Your task to perform on an android device: turn off picture-in-picture Image 0: 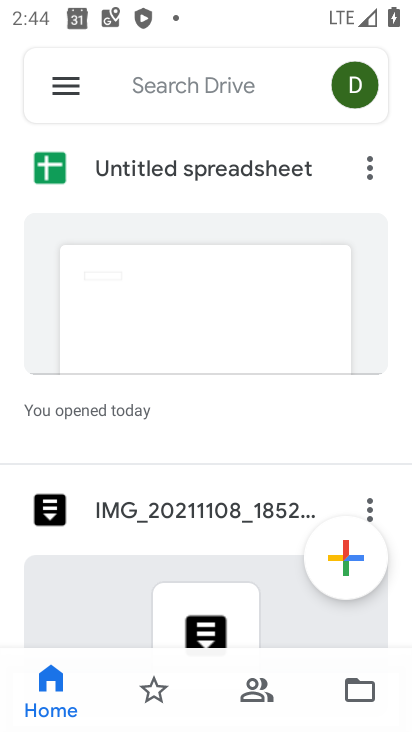
Step 0: press home button
Your task to perform on an android device: turn off picture-in-picture Image 1: 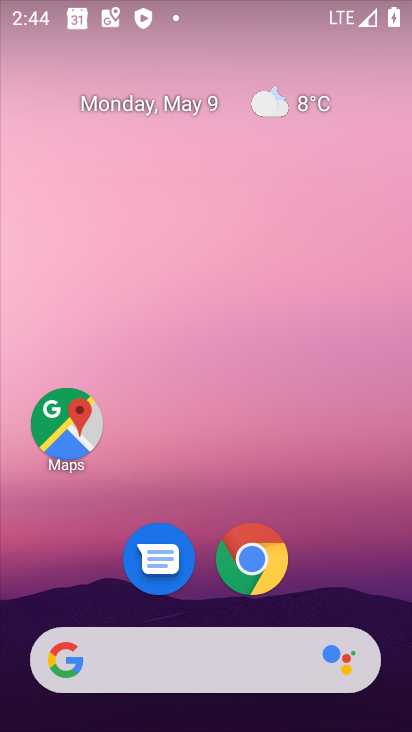
Step 1: drag from (329, 562) to (280, 0)
Your task to perform on an android device: turn off picture-in-picture Image 2: 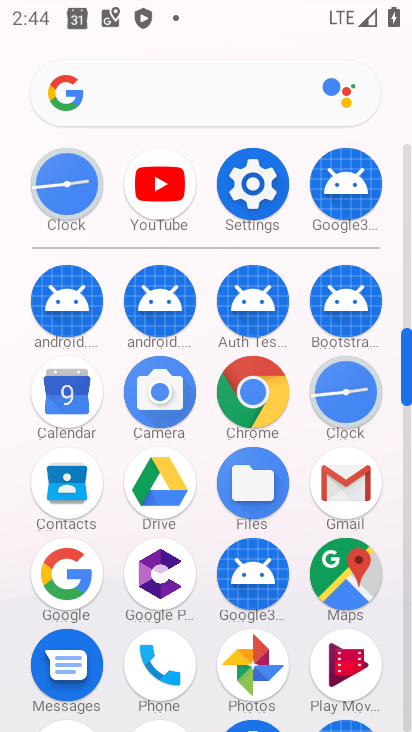
Step 2: click (242, 190)
Your task to perform on an android device: turn off picture-in-picture Image 3: 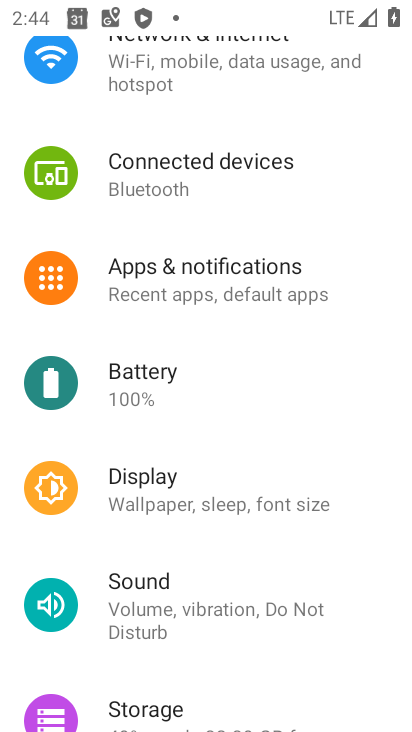
Step 3: click (191, 266)
Your task to perform on an android device: turn off picture-in-picture Image 4: 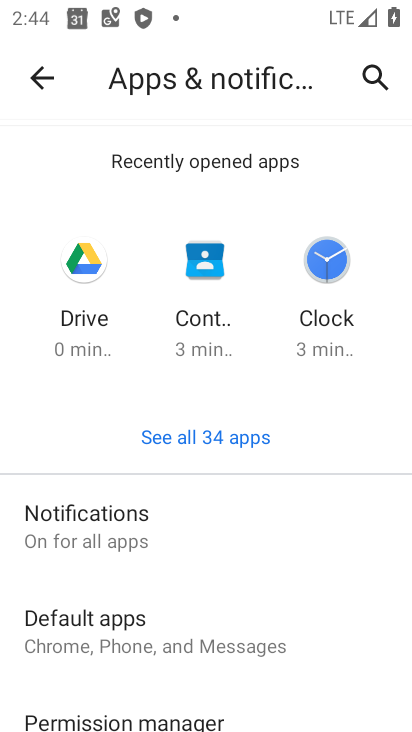
Step 4: drag from (251, 619) to (245, 49)
Your task to perform on an android device: turn off picture-in-picture Image 5: 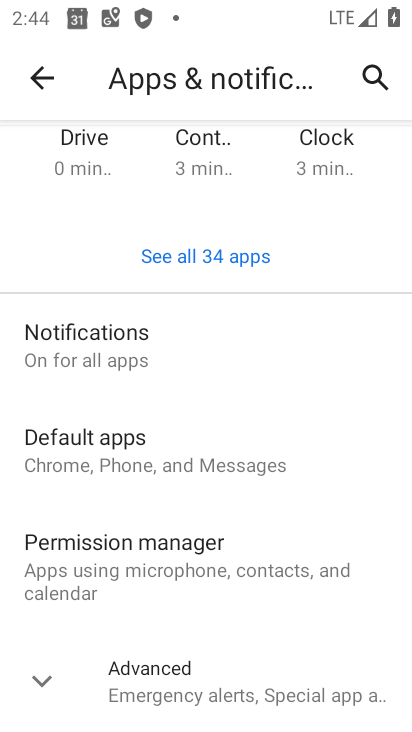
Step 5: click (84, 673)
Your task to perform on an android device: turn off picture-in-picture Image 6: 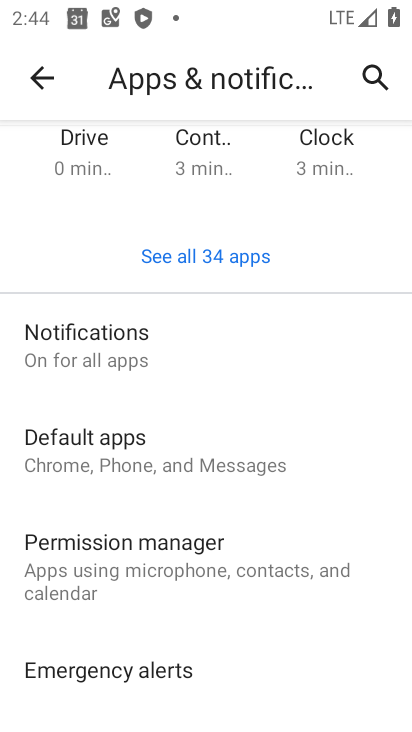
Step 6: drag from (96, 621) to (111, 33)
Your task to perform on an android device: turn off picture-in-picture Image 7: 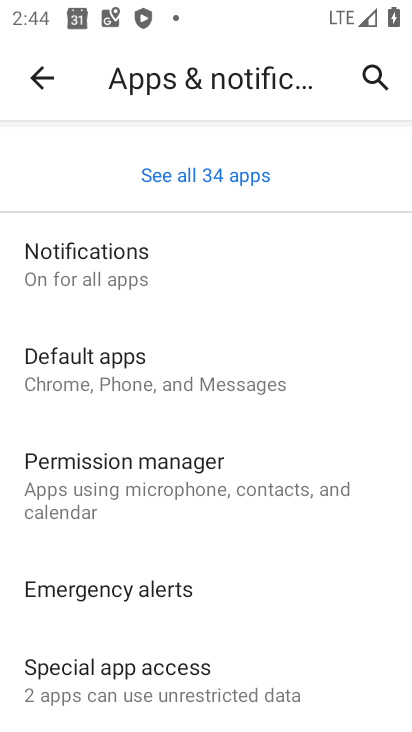
Step 7: click (139, 665)
Your task to perform on an android device: turn off picture-in-picture Image 8: 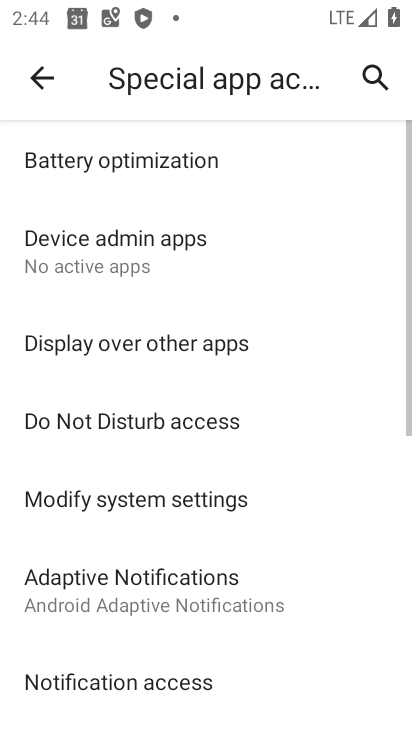
Step 8: drag from (215, 543) to (208, 116)
Your task to perform on an android device: turn off picture-in-picture Image 9: 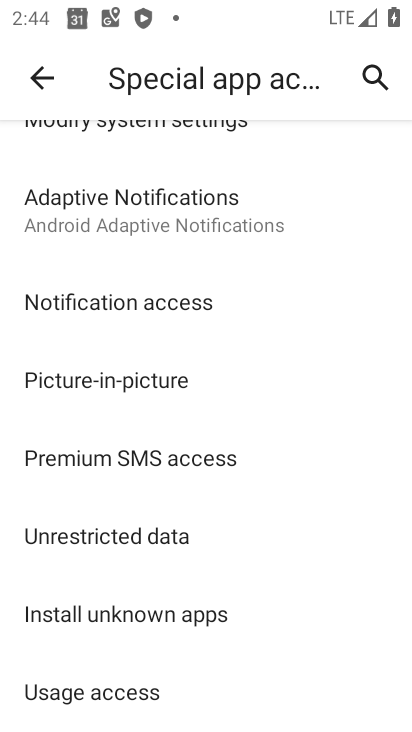
Step 9: click (135, 379)
Your task to perform on an android device: turn off picture-in-picture Image 10: 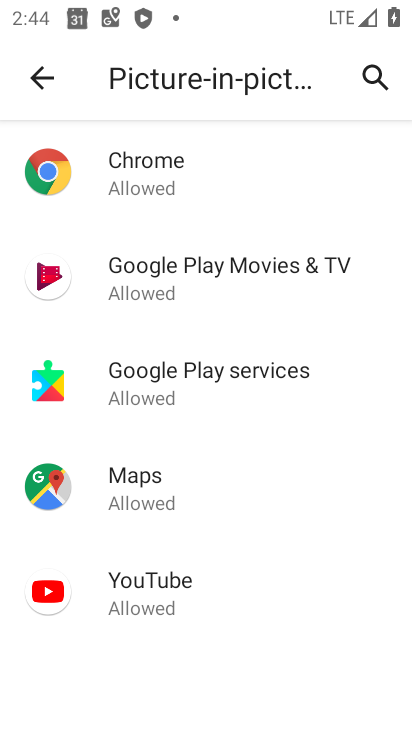
Step 10: click (133, 172)
Your task to perform on an android device: turn off picture-in-picture Image 11: 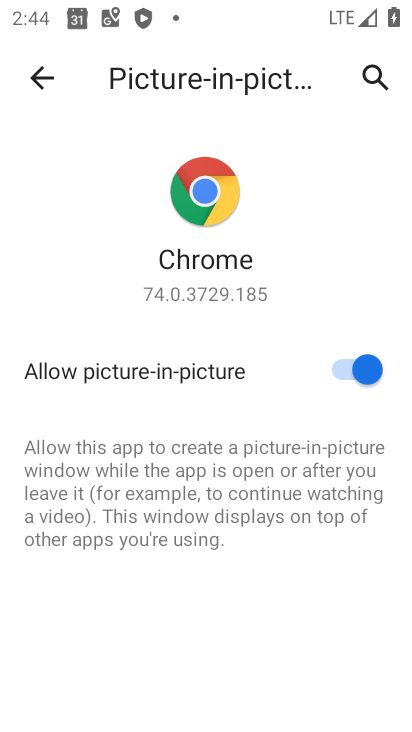
Step 11: click (358, 380)
Your task to perform on an android device: turn off picture-in-picture Image 12: 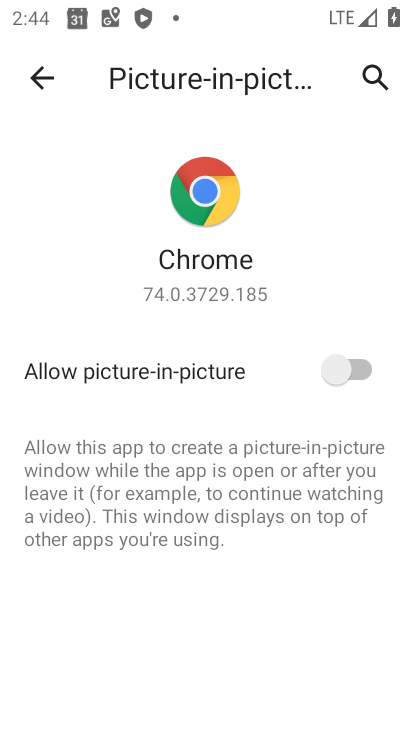
Step 12: click (43, 74)
Your task to perform on an android device: turn off picture-in-picture Image 13: 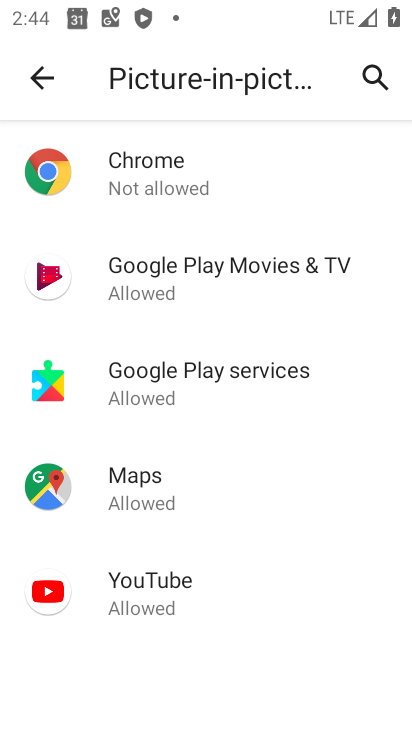
Step 13: click (139, 269)
Your task to perform on an android device: turn off picture-in-picture Image 14: 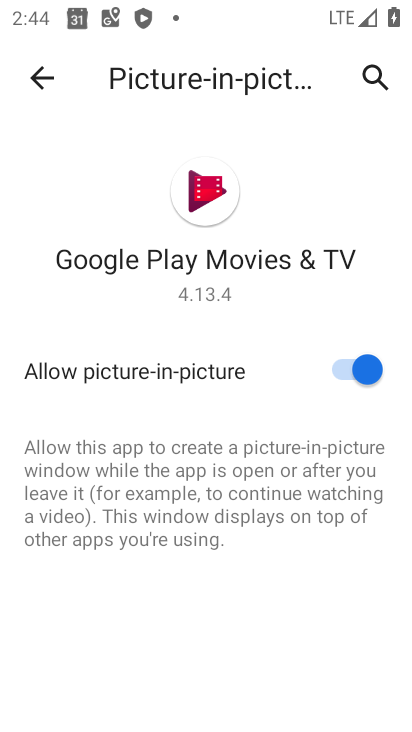
Step 14: click (359, 365)
Your task to perform on an android device: turn off picture-in-picture Image 15: 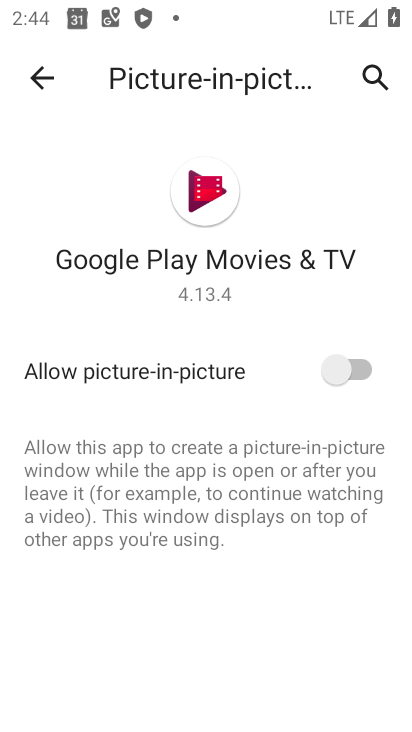
Step 15: click (47, 75)
Your task to perform on an android device: turn off picture-in-picture Image 16: 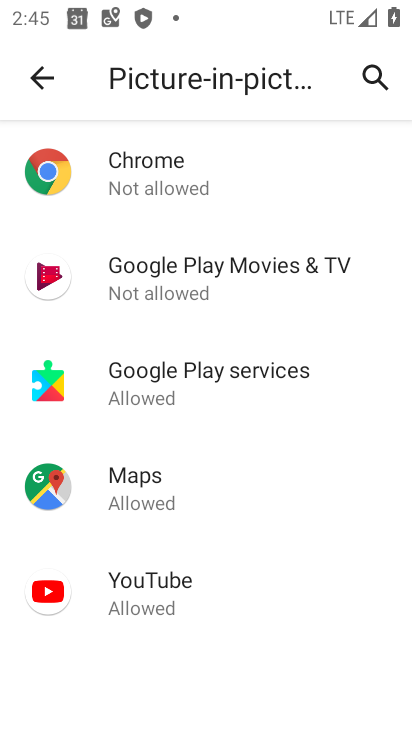
Step 16: click (120, 382)
Your task to perform on an android device: turn off picture-in-picture Image 17: 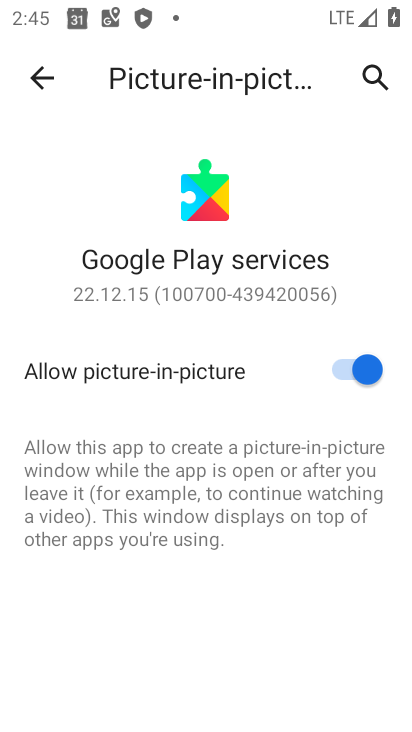
Step 17: click (352, 361)
Your task to perform on an android device: turn off picture-in-picture Image 18: 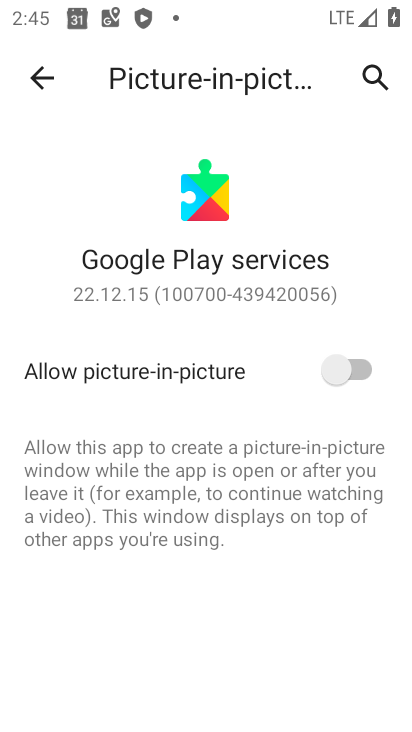
Step 18: click (40, 73)
Your task to perform on an android device: turn off picture-in-picture Image 19: 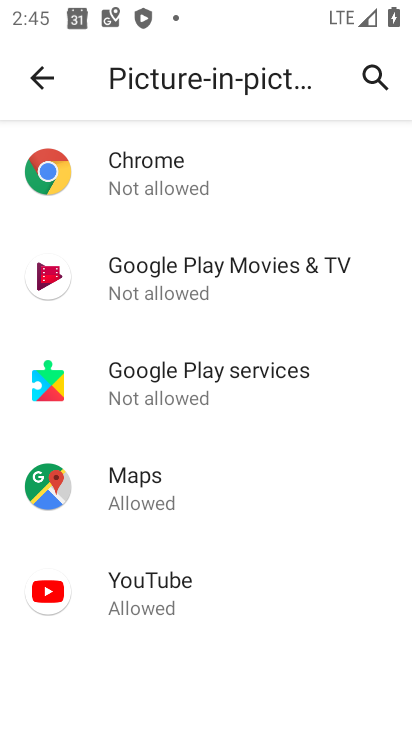
Step 19: click (120, 505)
Your task to perform on an android device: turn off picture-in-picture Image 20: 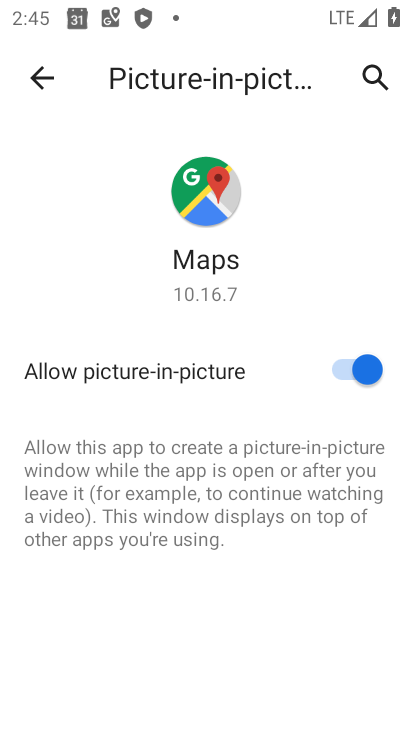
Step 20: click (361, 370)
Your task to perform on an android device: turn off picture-in-picture Image 21: 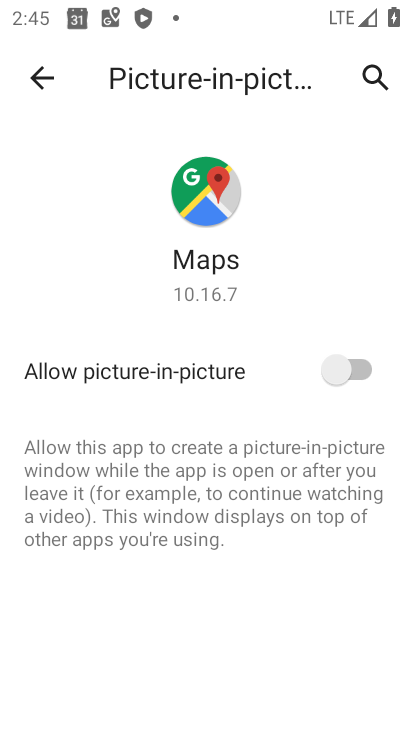
Step 21: click (44, 79)
Your task to perform on an android device: turn off picture-in-picture Image 22: 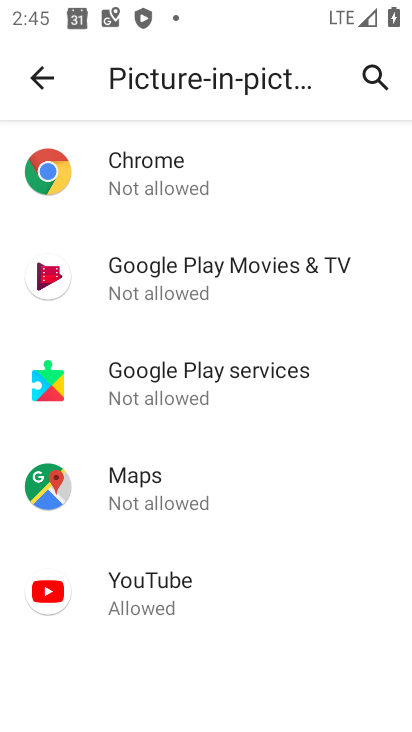
Step 22: click (139, 570)
Your task to perform on an android device: turn off picture-in-picture Image 23: 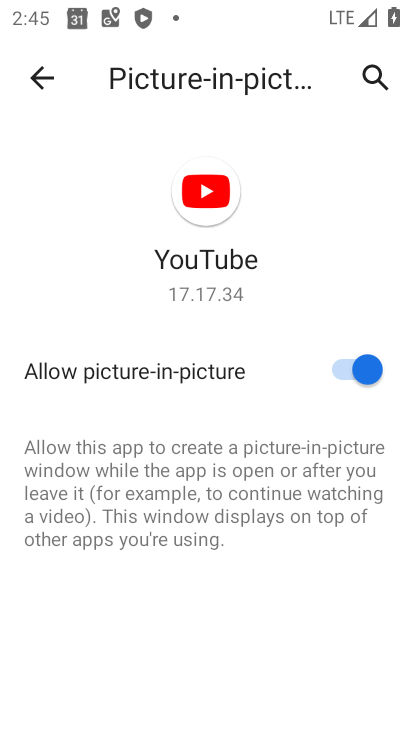
Step 23: click (353, 373)
Your task to perform on an android device: turn off picture-in-picture Image 24: 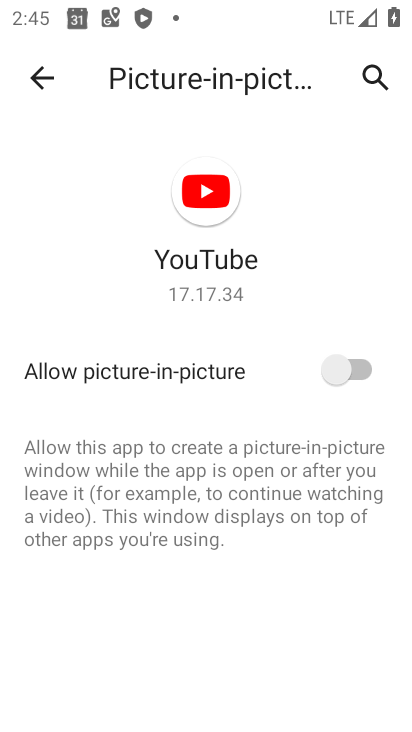
Step 24: task complete